Your task to perform on an android device: Go to Google Image 0: 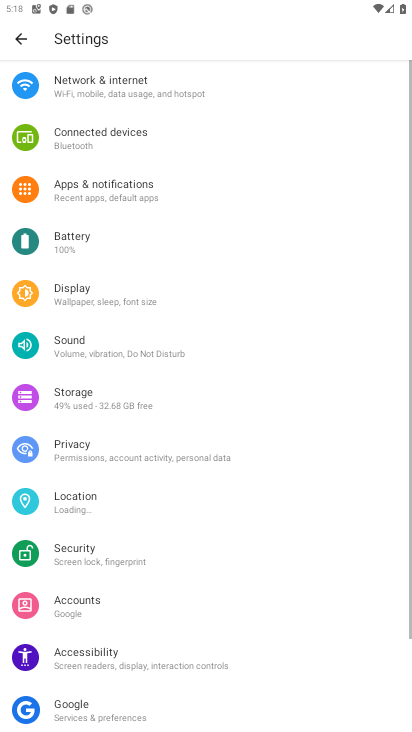
Step 0: press home button
Your task to perform on an android device: Go to Google Image 1: 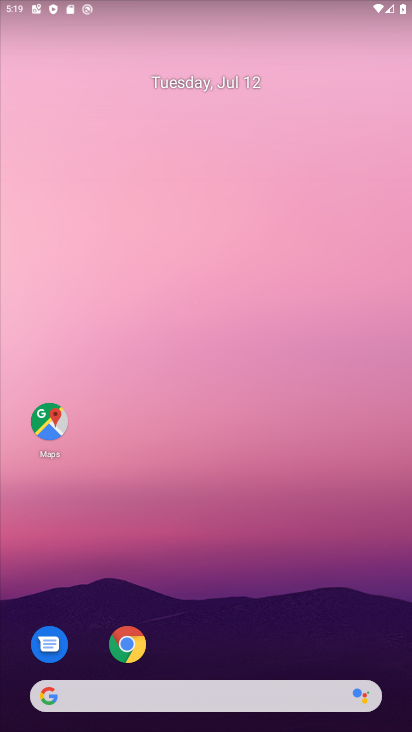
Step 1: drag from (327, 591) to (314, 224)
Your task to perform on an android device: Go to Google Image 2: 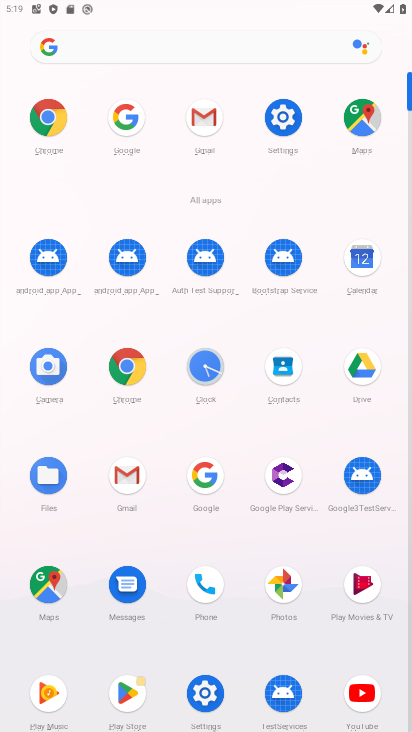
Step 2: click (208, 466)
Your task to perform on an android device: Go to Google Image 3: 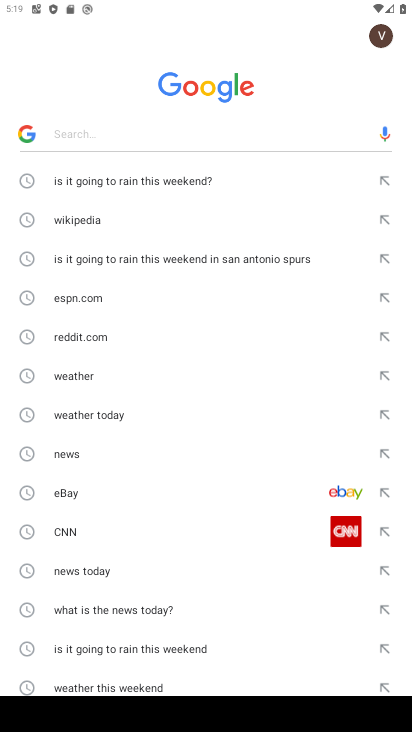
Step 3: task complete